Your task to perform on an android device: add a contact Image 0: 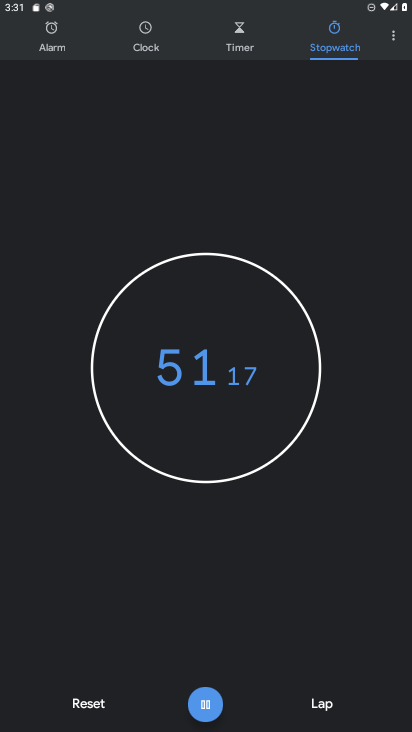
Step 0: press home button
Your task to perform on an android device: add a contact Image 1: 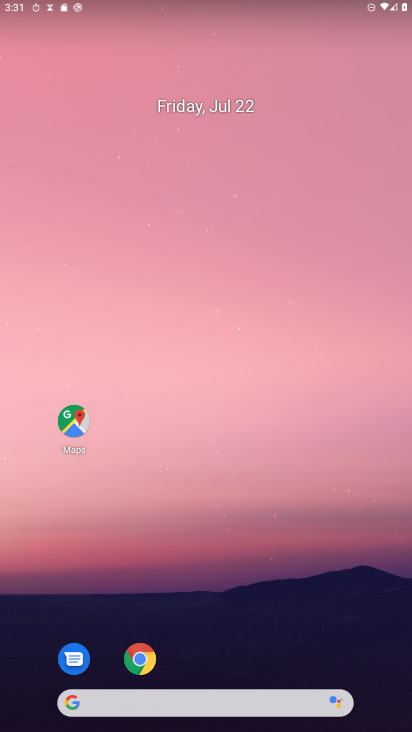
Step 1: drag from (268, 623) to (63, 0)
Your task to perform on an android device: add a contact Image 2: 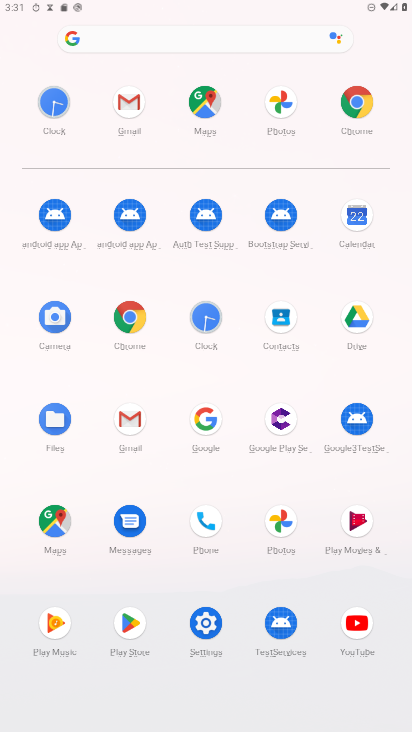
Step 2: click (211, 520)
Your task to perform on an android device: add a contact Image 3: 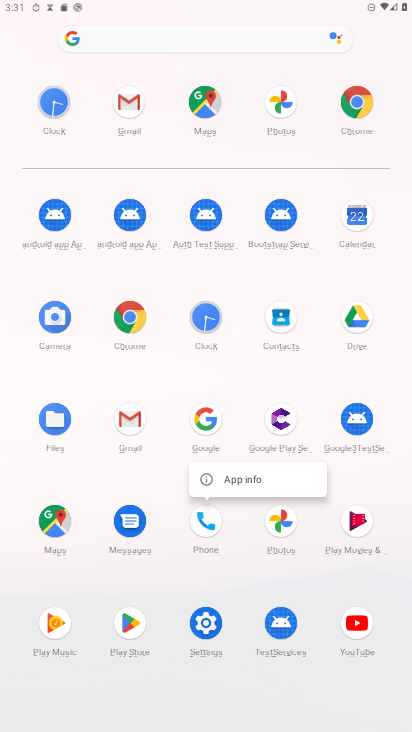
Step 3: click (211, 520)
Your task to perform on an android device: add a contact Image 4: 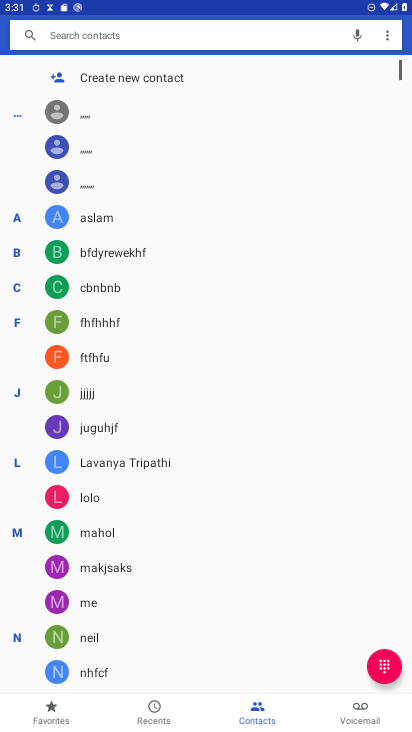
Step 4: click (110, 77)
Your task to perform on an android device: add a contact Image 5: 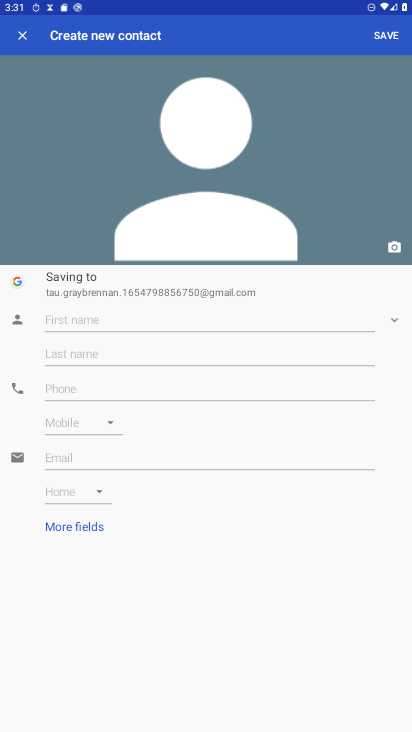
Step 5: click (81, 309)
Your task to perform on an android device: add a contact Image 6: 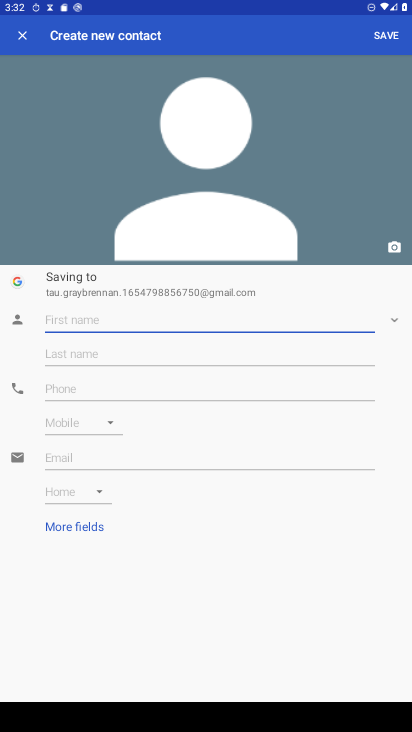
Step 6: type "ggh"
Your task to perform on an android device: add a contact Image 7: 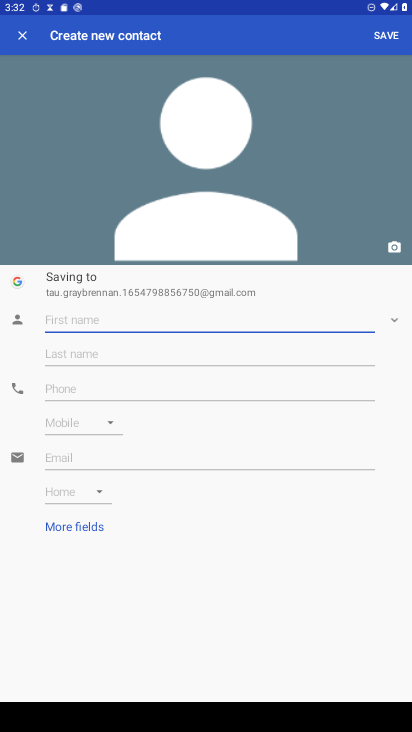
Step 7: click (112, 390)
Your task to perform on an android device: add a contact Image 8: 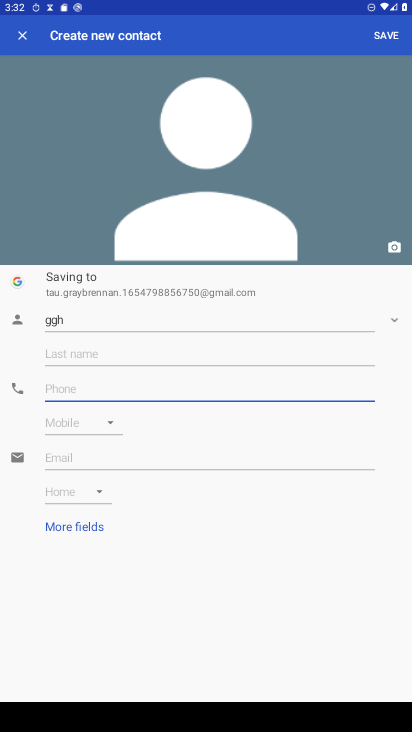
Step 8: type "7655666"
Your task to perform on an android device: add a contact Image 9: 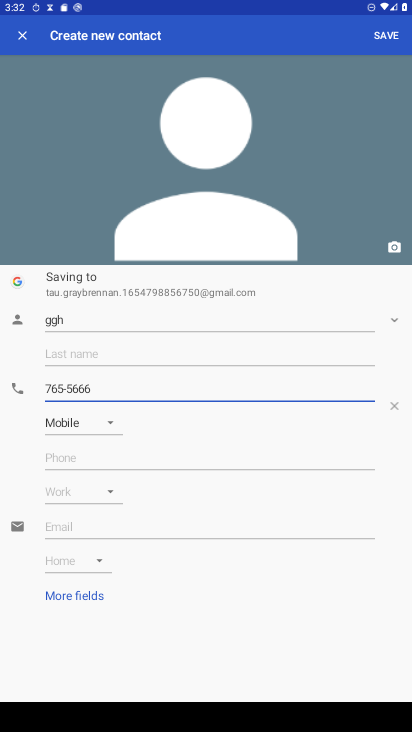
Step 9: click (388, 27)
Your task to perform on an android device: add a contact Image 10: 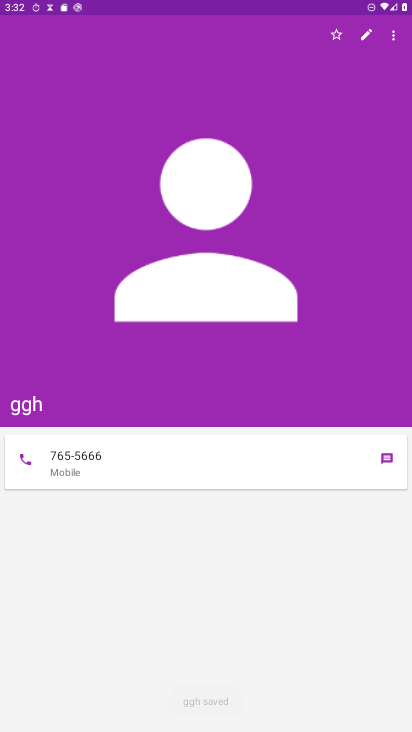
Step 10: task complete